Your task to perform on an android device: open app "Facebook" (install if not already installed) and enter user name: "resultants@gmail.com" and password: "earned" Image 0: 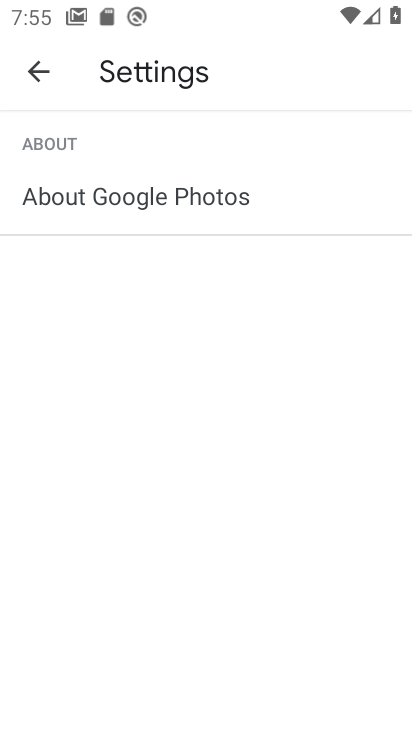
Step 0: click (35, 73)
Your task to perform on an android device: open app "Facebook" (install if not already installed) and enter user name: "resultants@gmail.com" and password: "earned" Image 1: 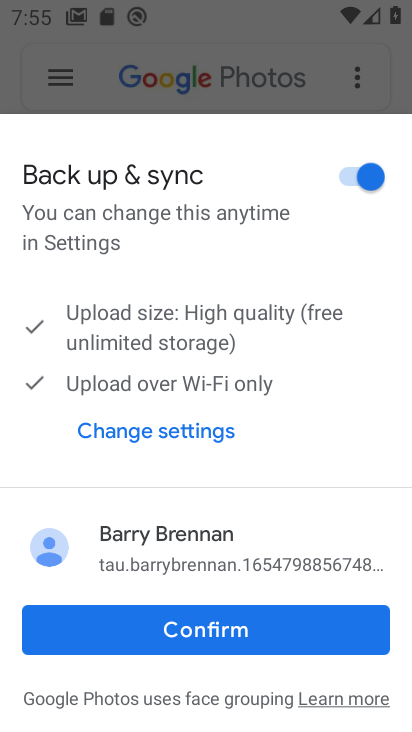
Step 1: press home button
Your task to perform on an android device: open app "Facebook" (install if not already installed) and enter user name: "resultants@gmail.com" and password: "earned" Image 2: 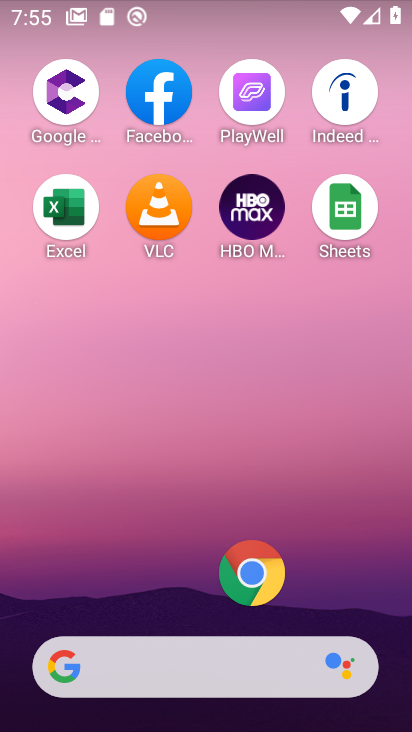
Step 2: drag from (172, 612) to (209, 80)
Your task to perform on an android device: open app "Facebook" (install if not already installed) and enter user name: "resultants@gmail.com" and password: "earned" Image 3: 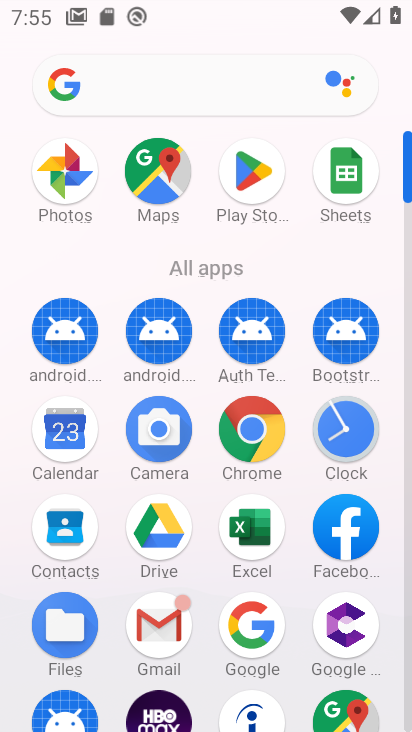
Step 3: click (258, 170)
Your task to perform on an android device: open app "Facebook" (install if not already installed) and enter user name: "resultants@gmail.com" and password: "earned" Image 4: 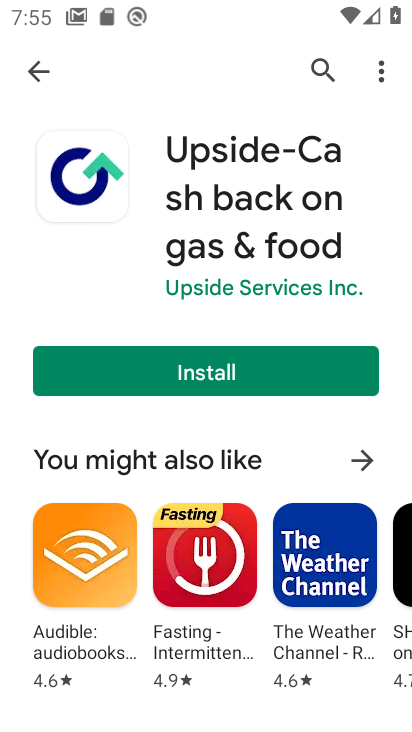
Step 4: click (38, 74)
Your task to perform on an android device: open app "Facebook" (install if not already installed) and enter user name: "resultants@gmail.com" and password: "earned" Image 5: 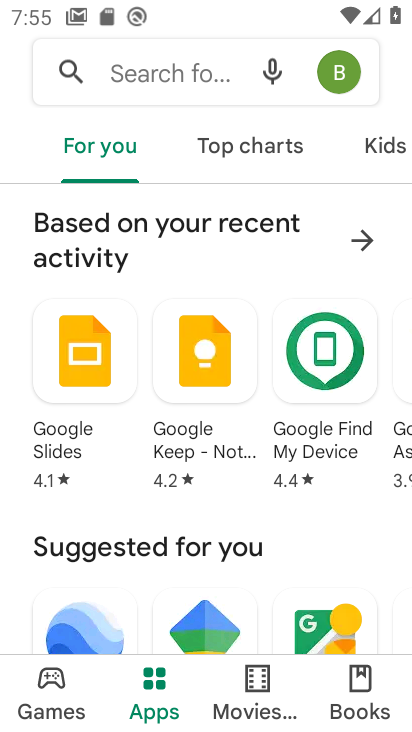
Step 5: click (135, 74)
Your task to perform on an android device: open app "Facebook" (install if not already installed) and enter user name: "resultants@gmail.com" and password: "earned" Image 6: 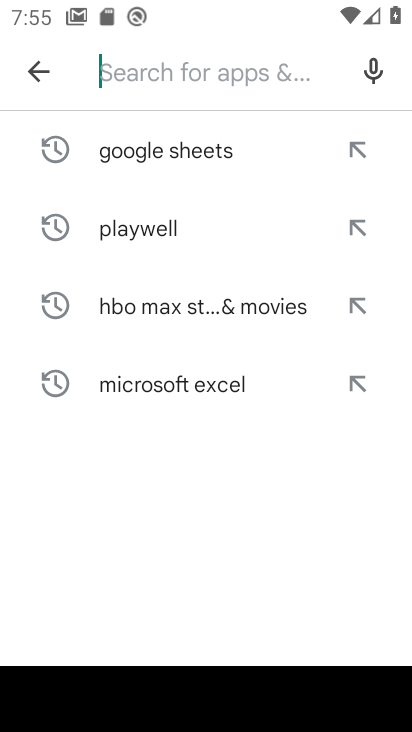
Step 6: type "Facebook"
Your task to perform on an android device: open app "Facebook" (install if not already installed) and enter user name: "resultants@gmail.com" and password: "earned" Image 7: 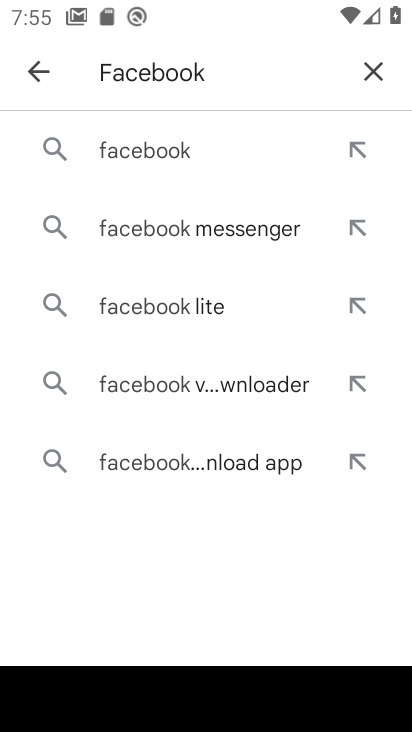
Step 7: click (120, 155)
Your task to perform on an android device: open app "Facebook" (install if not already installed) and enter user name: "resultants@gmail.com" and password: "earned" Image 8: 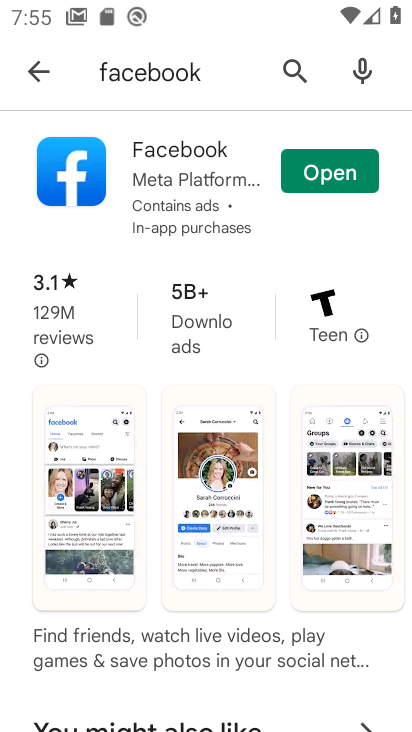
Step 8: click (327, 167)
Your task to perform on an android device: open app "Facebook" (install if not already installed) and enter user name: "resultants@gmail.com" and password: "earned" Image 9: 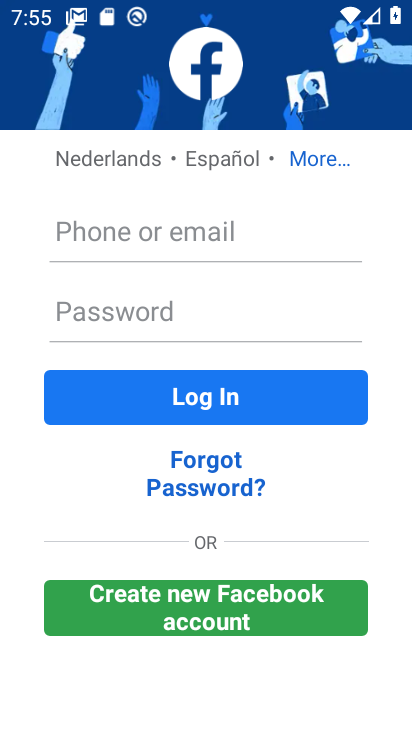
Step 9: click (116, 226)
Your task to perform on an android device: open app "Facebook" (install if not already installed) and enter user name: "resultants@gmail.com" and password: "earned" Image 10: 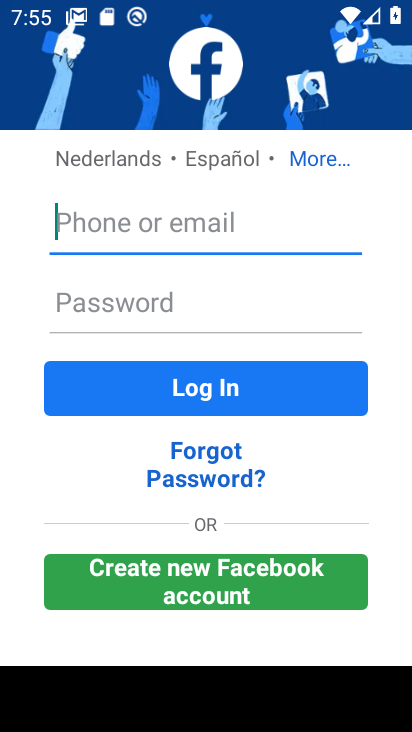
Step 10: type "resultants@gmail.com"
Your task to perform on an android device: open app "Facebook" (install if not already installed) and enter user name: "resultants@gmail.com" and password: "earned" Image 11: 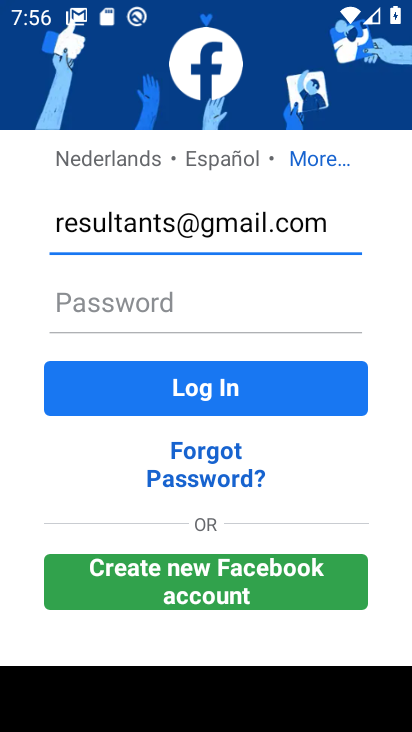
Step 11: click (105, 303)
Your task to perform on an android device: open app "Facebook" (install if not already installed) and enter user name: "resultants@gmail.com" and password: "earned" Image 12: 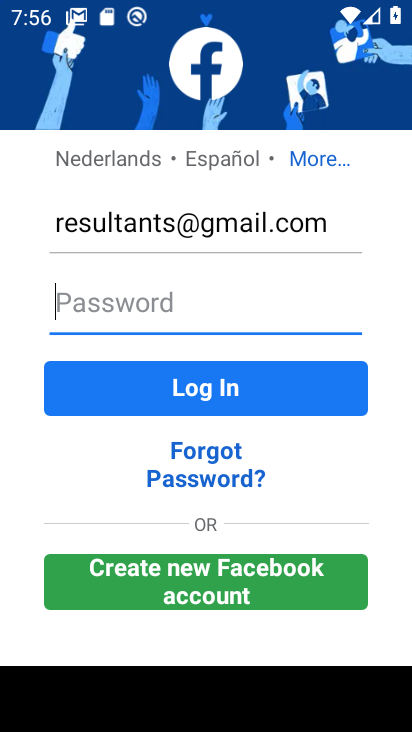
Step 12: type "earned"
Your task to perform on an android device: open app "Facebook" (install if not already installed) and enter user name: "resultants@gmail.com" and password: "earned" Image 13: 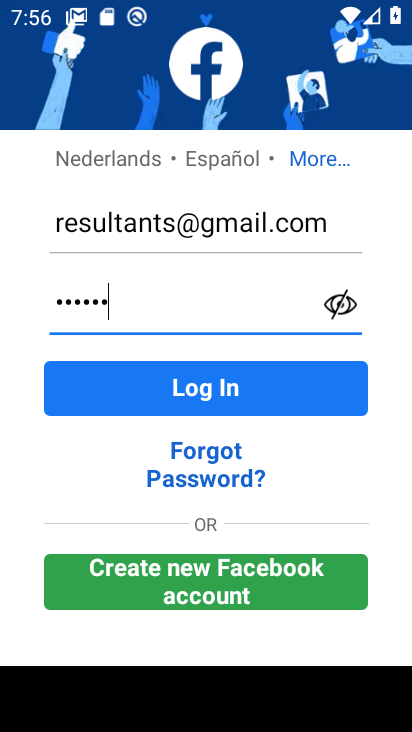
Step 13: task complete